Your task to perform on an android device: Open Yahoo.com Image 0: 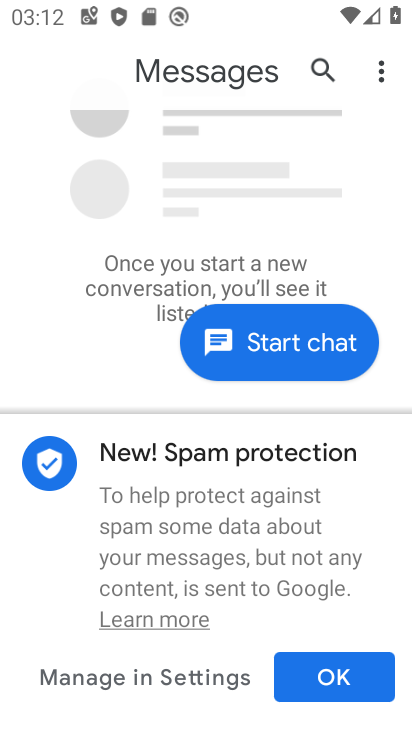
Step 0: press home button
Your task to perform on an android device: Open Yahoo.com Image 1: 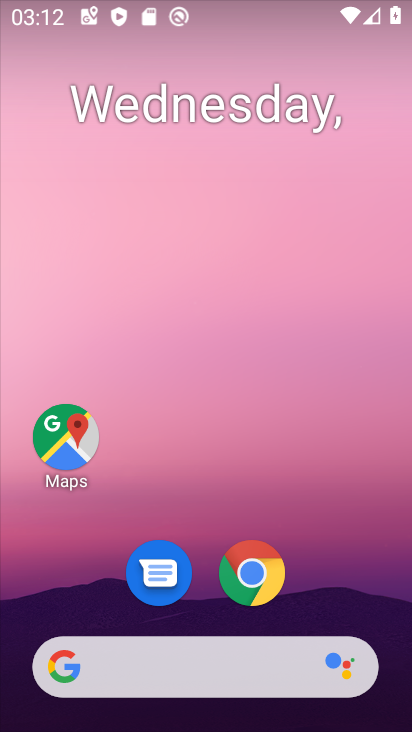
Step 1: click (251, 575)
Your task to perform on an android device: Open Yahoo.com Image 2: 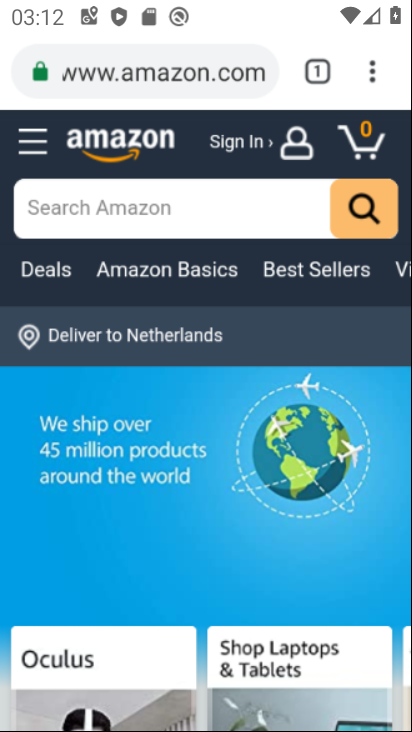
Step 2: click (220, 72)
Your task to perform on an android device: Open Yahoo.com Image 3: 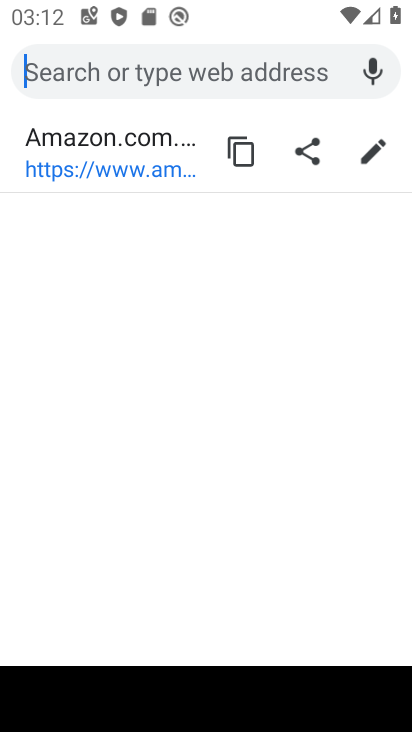
Step 3: type "Yahoo.com"
Your task to perform on an android device: Open Yahoo.com Image 4: 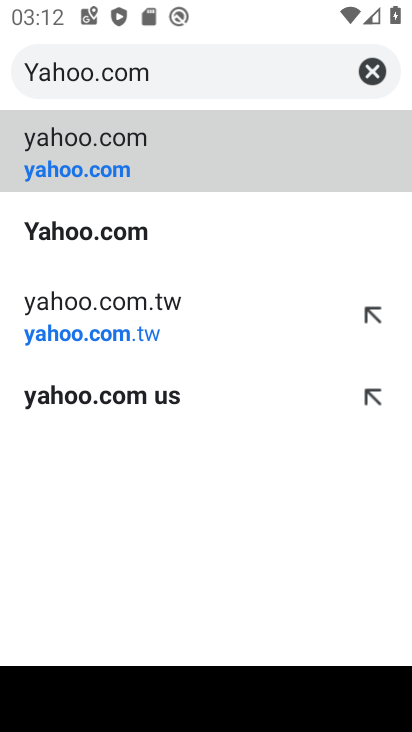
Step 4: click (128, 232)
Your task to perform on an android device: Open Yahoo.com Image 5: 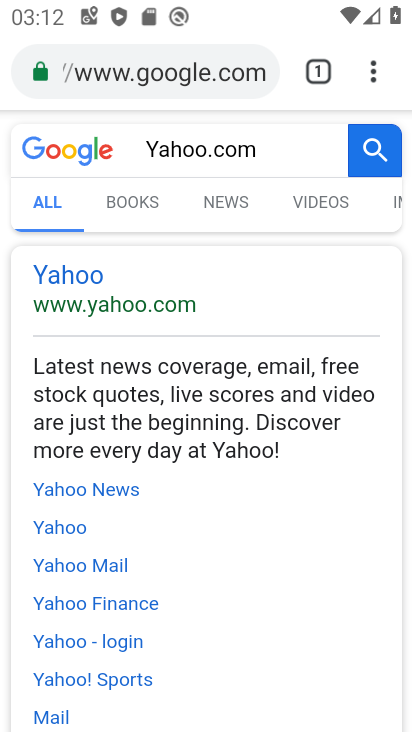
Step 5: click (102, 308)
Your task to perform on an android device: Open Yahoo.com Image 6: 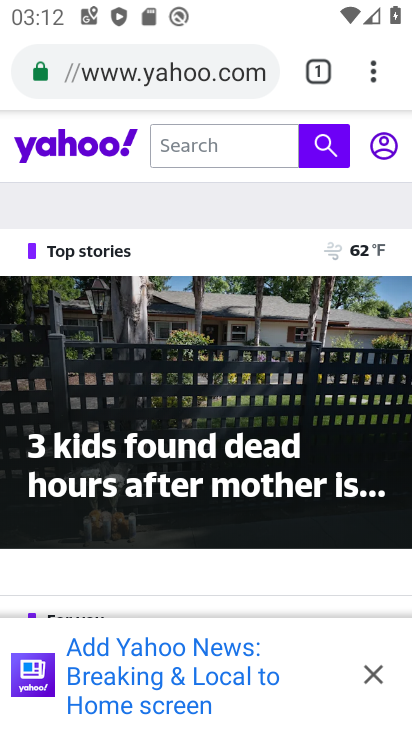
Step 6: task complete